Your task to perform on an android device: turn off sleep mode Image 0: 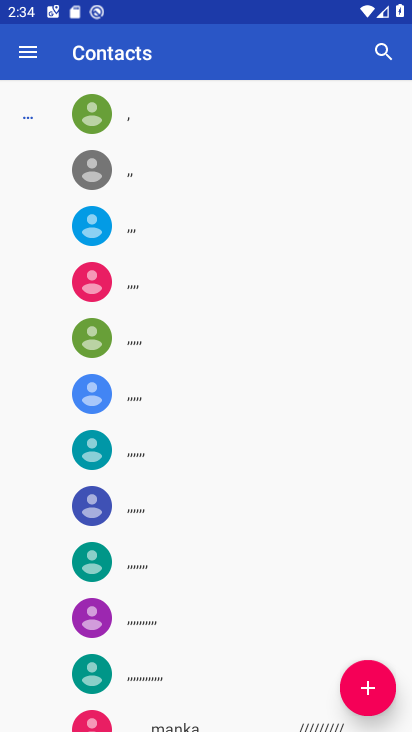
Step 0: press home button
Your task to perform on an android device: turn off sleep mode Image 1: 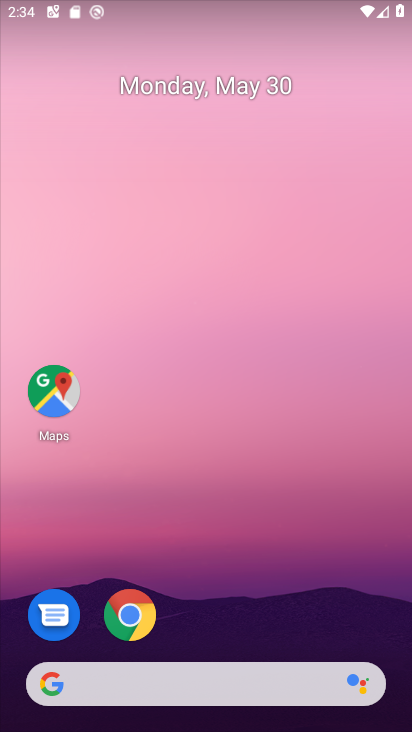
Step 1: drag from (269, 501) to (301, 4)
Your task to perform on an android device: turn off sleep mode Image 2: 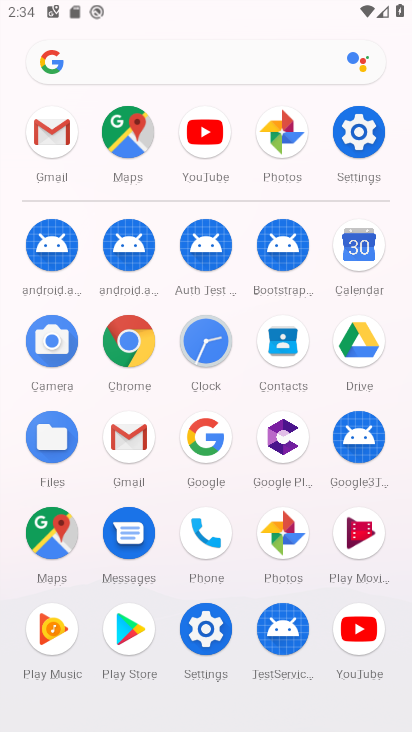
Step 2: click (363, 140)
Your task to perform on an android device: turn off sleep mode Image 3: 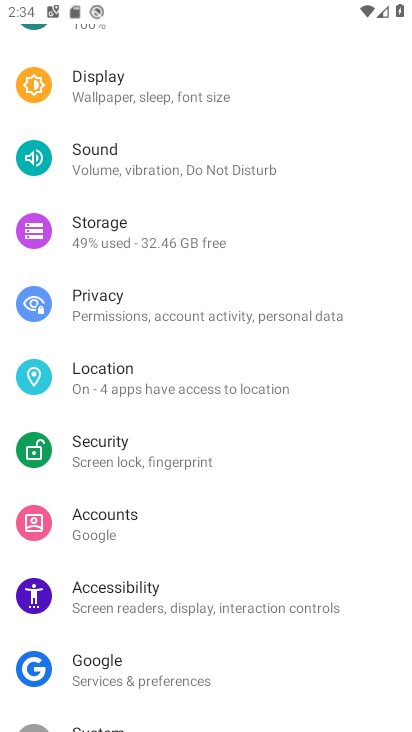
Step 3: drag from (200, 494) to (199, 663)
Your task to perform on an android device: turn off sleep mode Image 4: 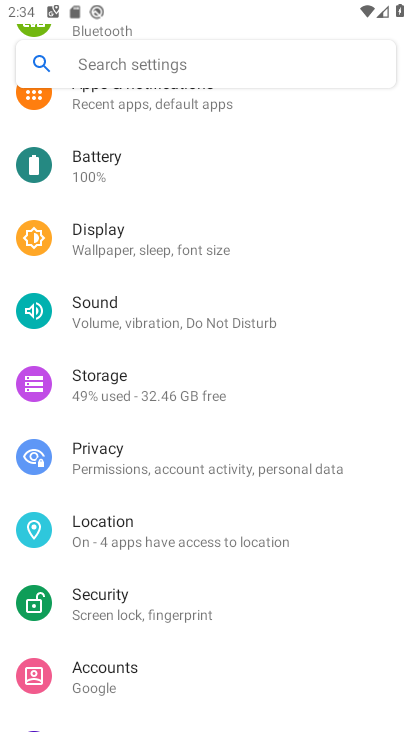
Step 4: click (173, 237)
Your task to perform on an android device: turn off sleep mode Image 5: 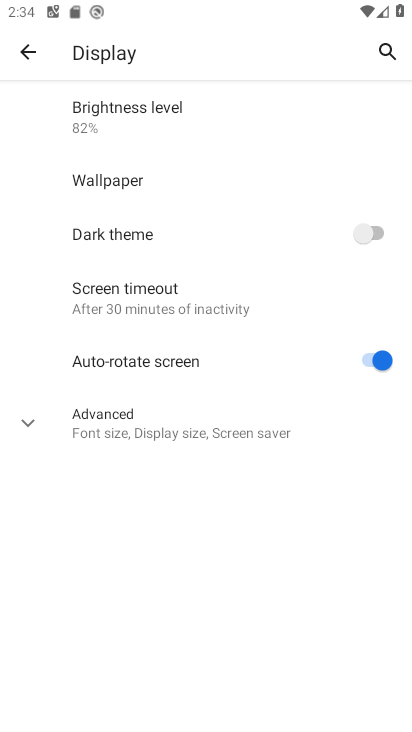
Step 5: click (29, 424)
Your task to perform on an android device: turn off sleep mode Image 6: 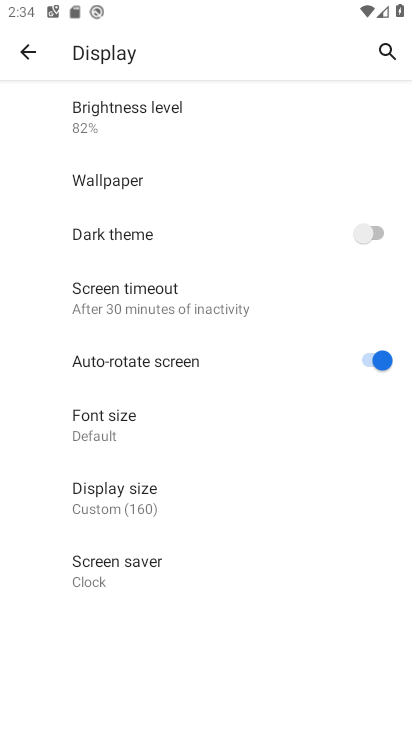
Step 6: task complete